Your task to perform on an android device: See recent photos Image 0: 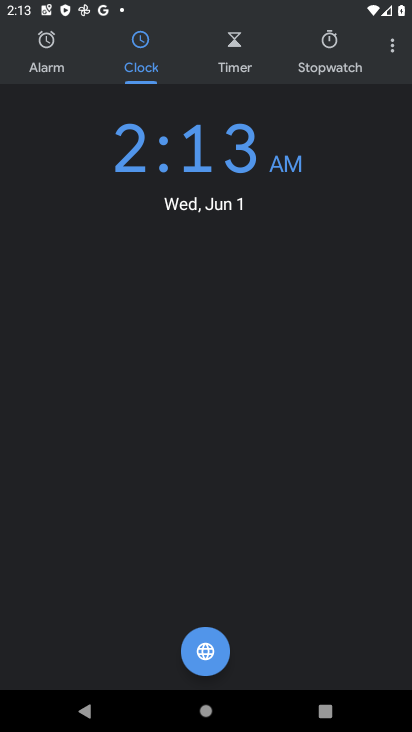
Step 0: press home button
Your task to perform on an android device: See recent photos Image 1: 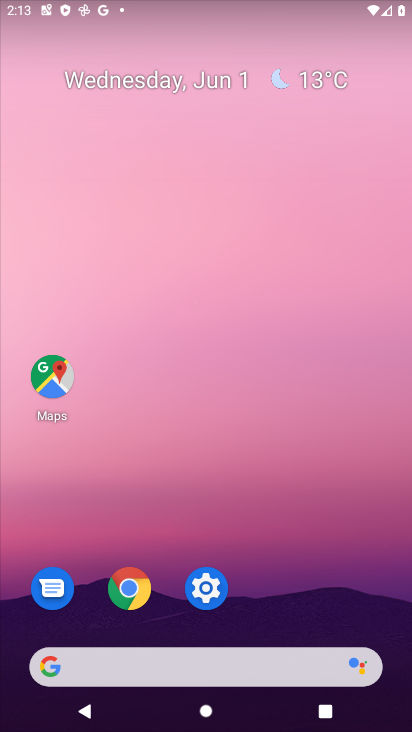
Step 1: drag from (207, 700) to (203, 381)
Your task to perform on an android device: See recent photos Image 2: 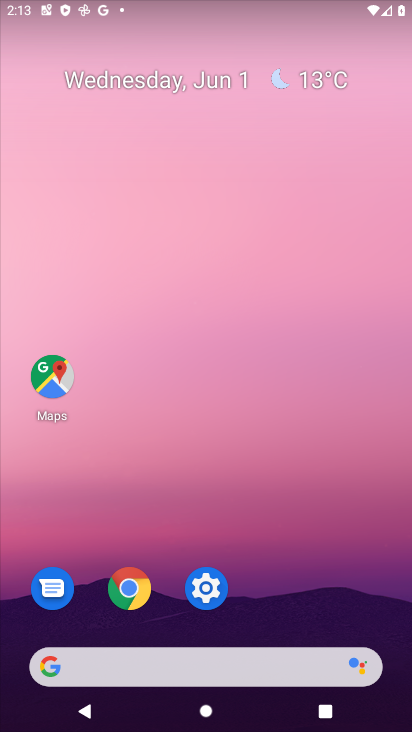
Step 2: drag from (139, 696) to (250, 173)
Your task to perform on an android device: See recent photos Image 3: 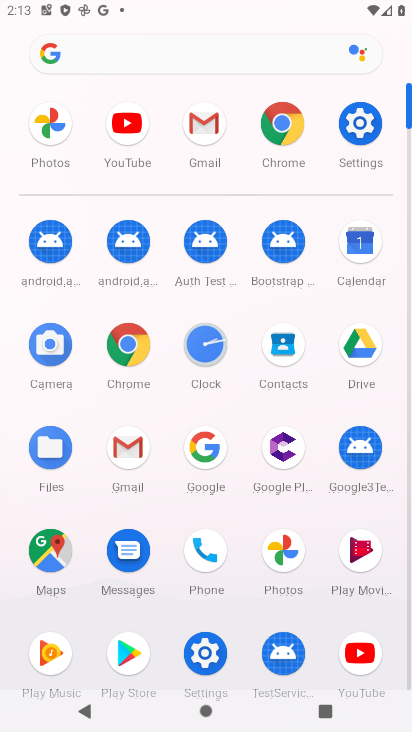
Step 3: click (279, 549)
Your task to perform on an android device: See recent photos Image 4: 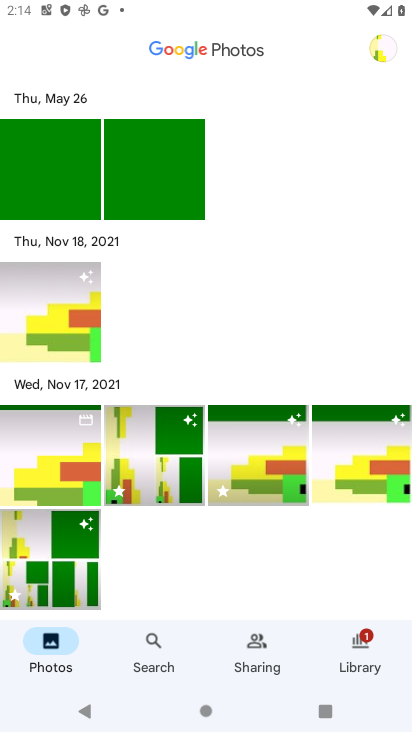
Step 4: task complete